Your task to perform on an android device: open sync settings in chrome Image 0: 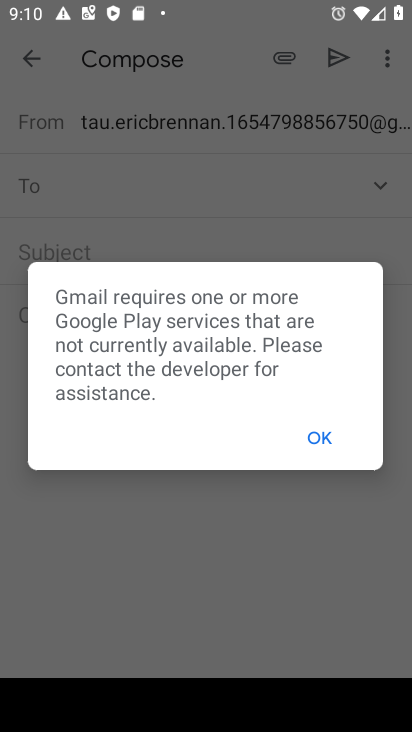
Step 0: press home button
Your task to perform on an android device: open sync settings in chrome Image 1: 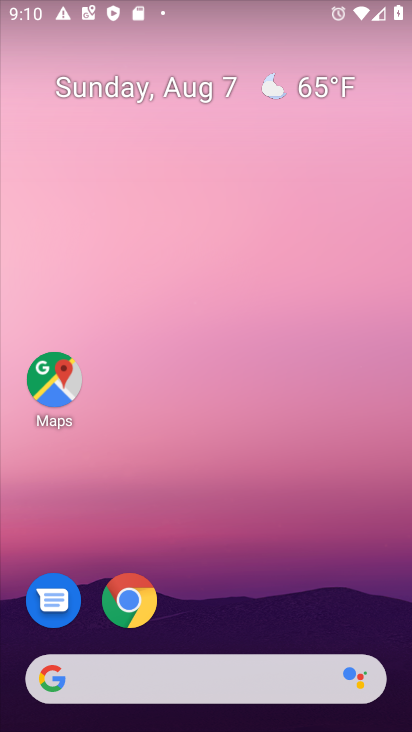
Step 1: click (127, 595)
Your task to perform on an android device: open sync settings in chrome Image 2: 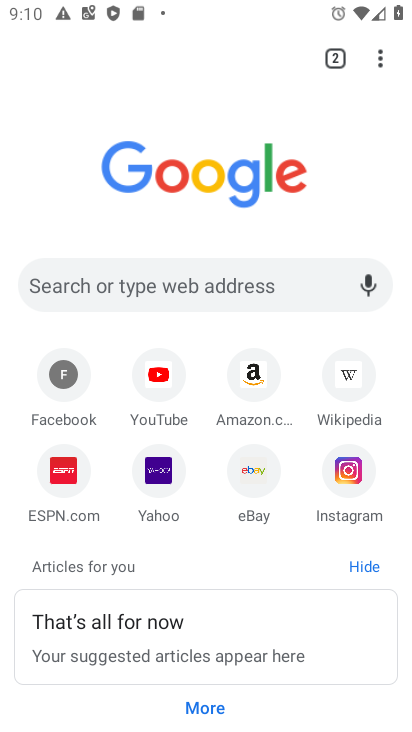
Step 2: click (382, 67)
Your task to perform on an android device: open sync settings in chrome Image 3: 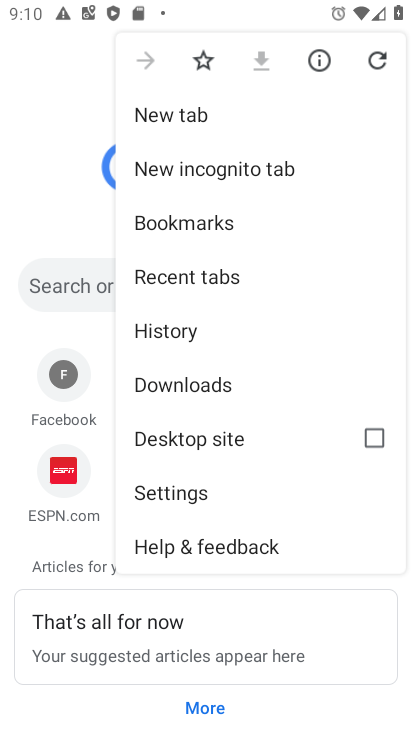
Step 3: click (178, 493)
Your task to perform on an android device: open sync settings in chrome Image 4: 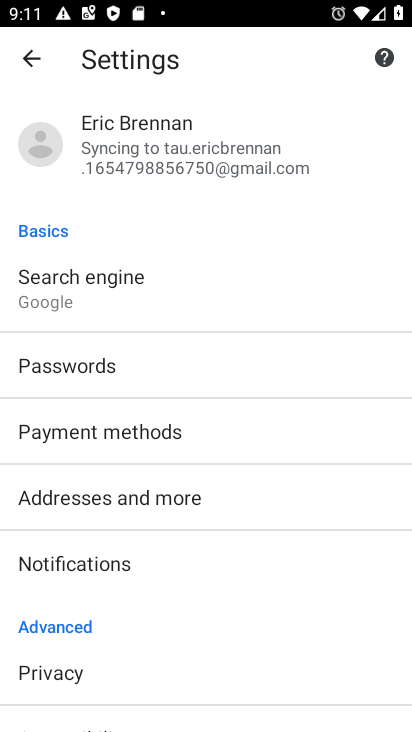
Step 4: click (122, 167)
Your task to perform on an android device: open sync settings in chrome Image 5: 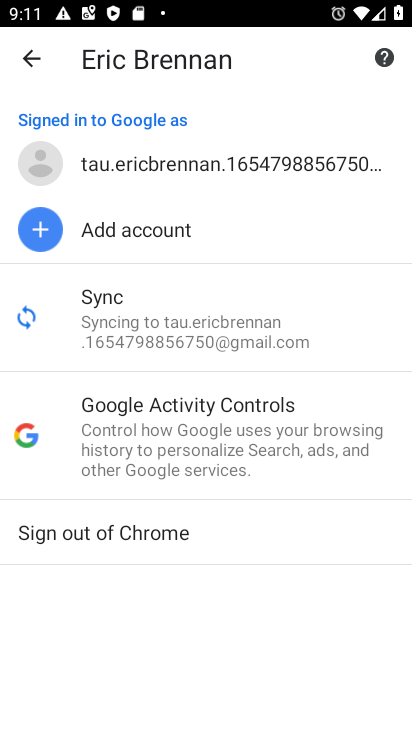
Step 5: click (110, 315)
Your task to perform on an android device: open sync settings in chrome Image 6: 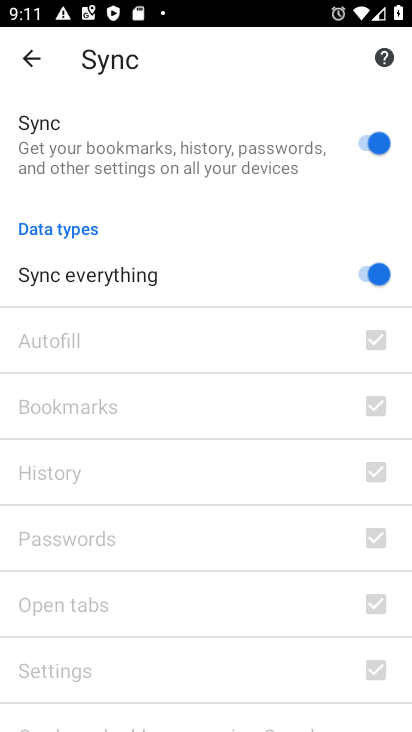
Step 6: task complete